Your task to perform on an android device: turn on showing notifications on the lock screen Image 0: 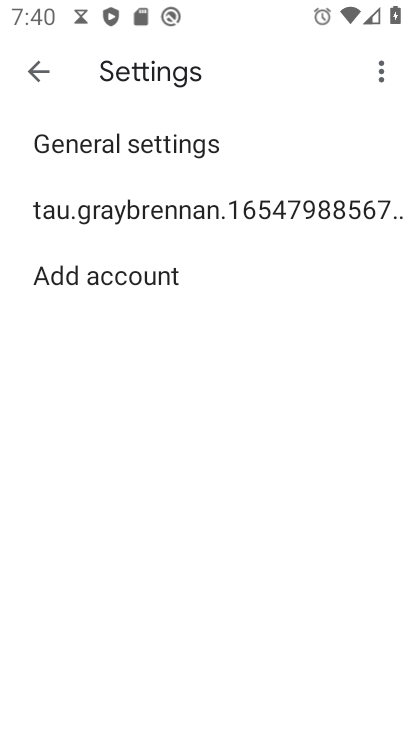
Step 0: press home button
Your task to perform on an android device: turn on showing notifications on the lock screen Image 1: 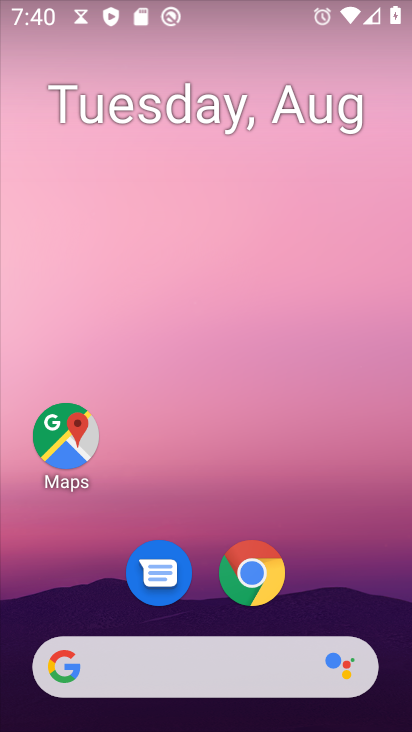
Step 1: drag from (203, 611) to (208, 0)
Your task to perform on an android device: turn on showing notifications on the lock screen Image 2: 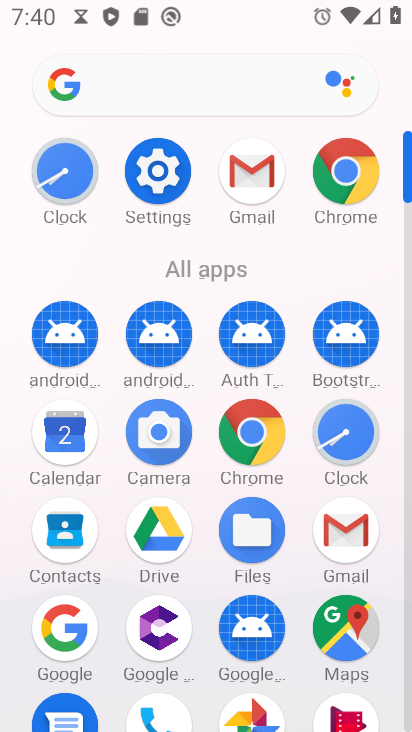
Step 2: click (156, 163)
Your task to perform on an android device: turn on showing notifications on the lock screen Image 3: 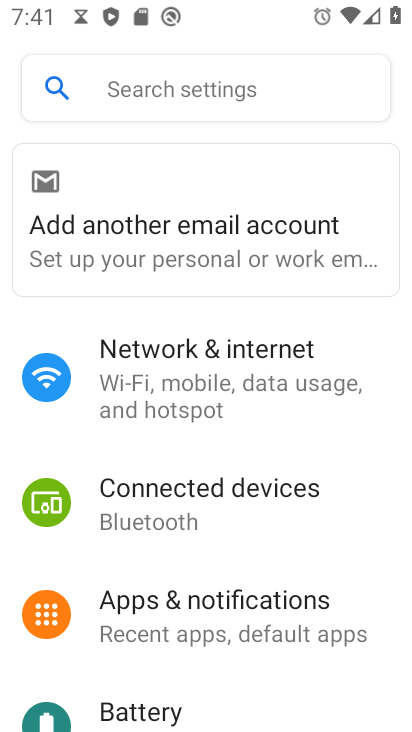
Step 3: click (189, 611)
Your task to perform on an android device: turn on showing notifications on the lock screen Image 4: 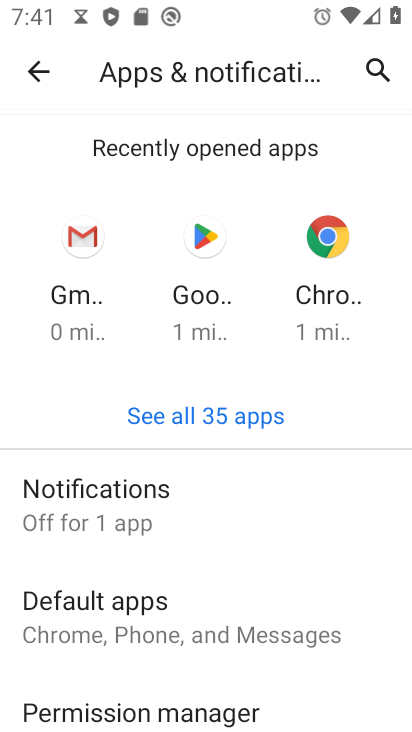
Step 4: click (182, 509)
Your task to perform on an android device: turn on showing notifications on the lock screen Image 5: 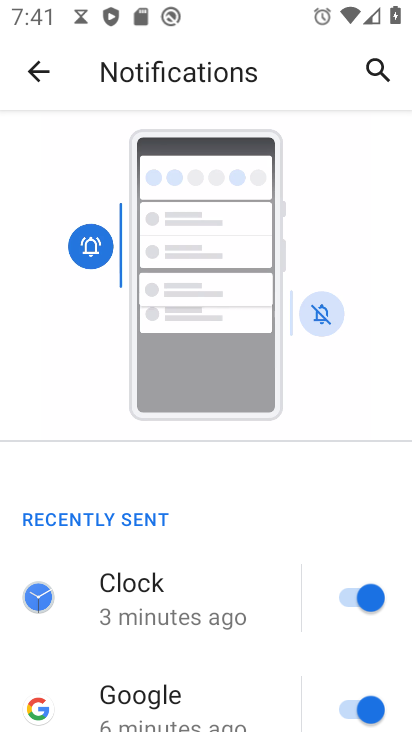
Step 5: drag from (248, 675) to (259, 191)
Your task to perform on an android device: turn on showing notifications on the lock screen Image 6: 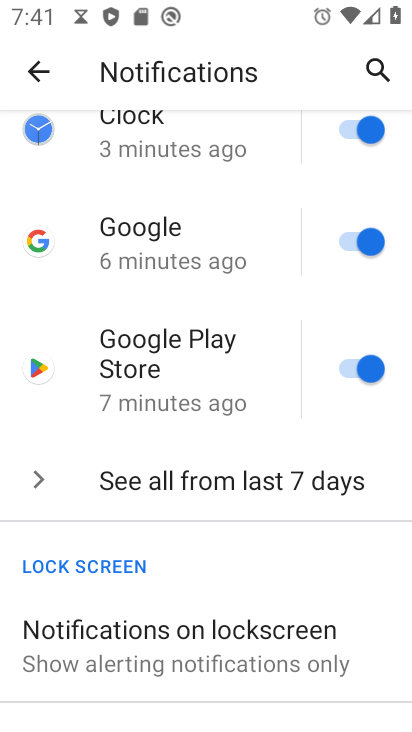
Step 6: click (223, 645)
Your task to perform on an android device: turn on showing notifications on the lock screen Image 7: 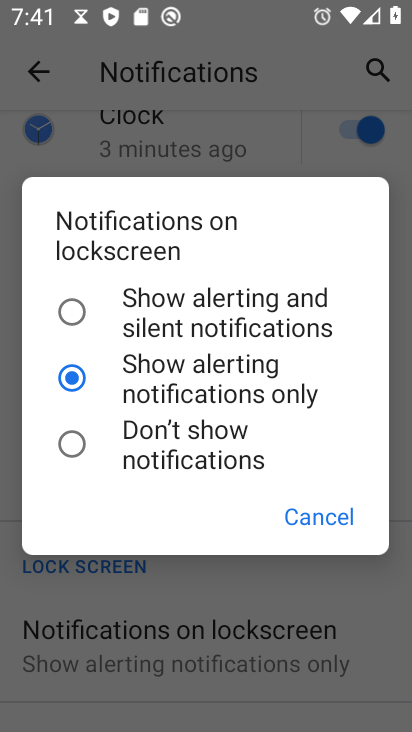
Step 7: click (72, 301)
Your task to perform on an android device: turn on showing notifications on the lock screen Image 8: 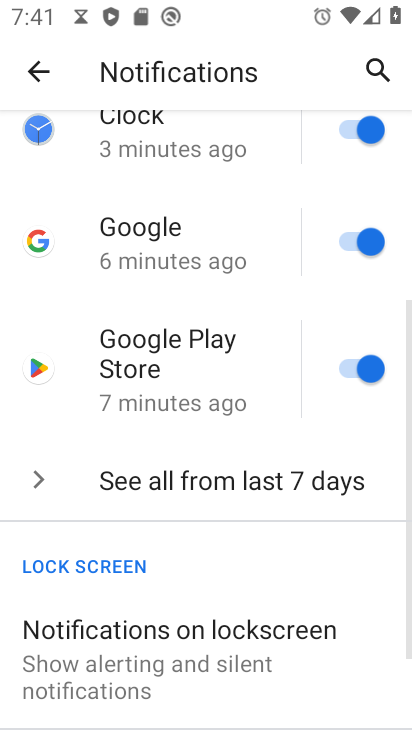
Step 8: task complete